Your task to perform on an android device: add a contact in the contacts app Image 0: 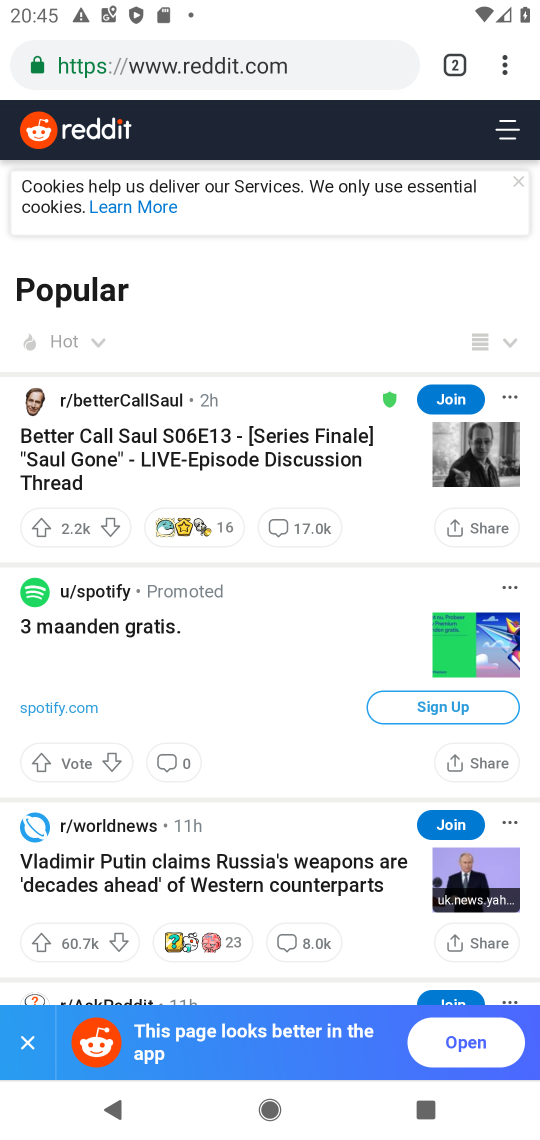
Step 0: press home button
Your task to perform on an android device: add a contact in the contacts app Image 1: 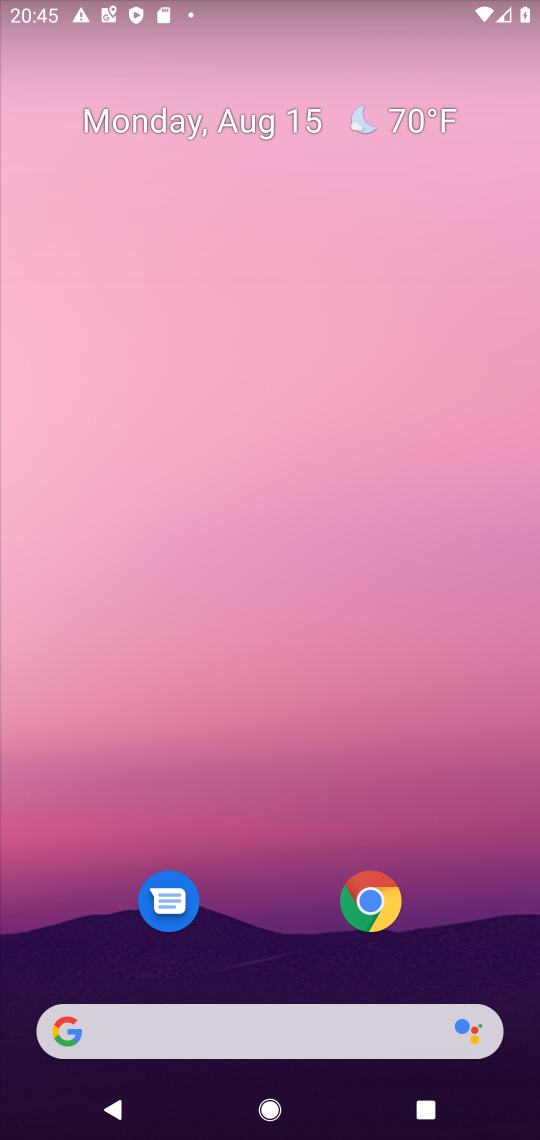
Step 1: drag from (263, 978) to (239, 312)
Your task to perform on an android device: add a contact in the contacts app Image 2: 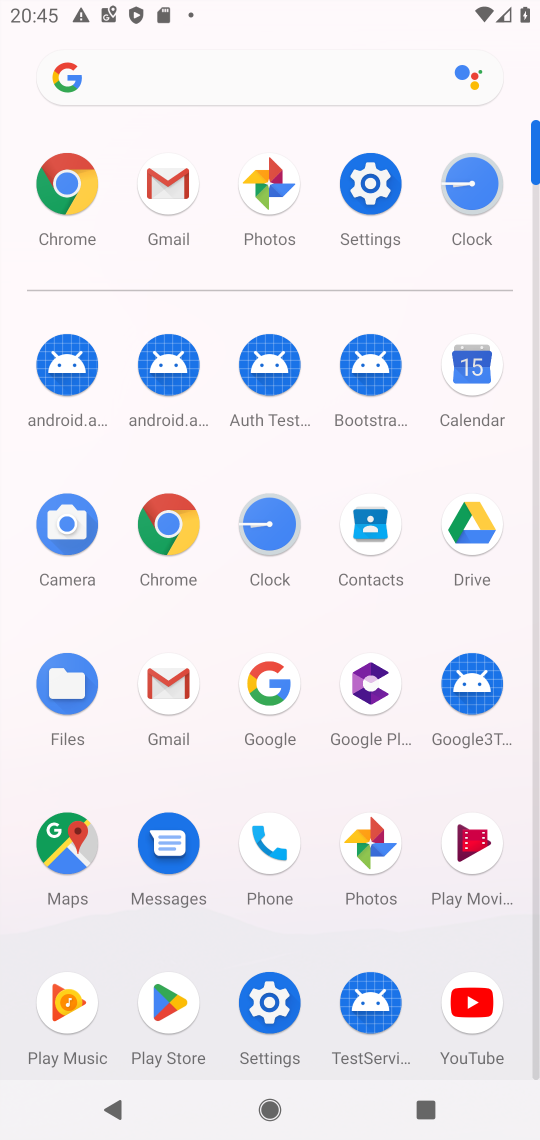
Step 2: click (370, 553)
Your task to perform on an android device: add a contact in the contacts app Image 3: 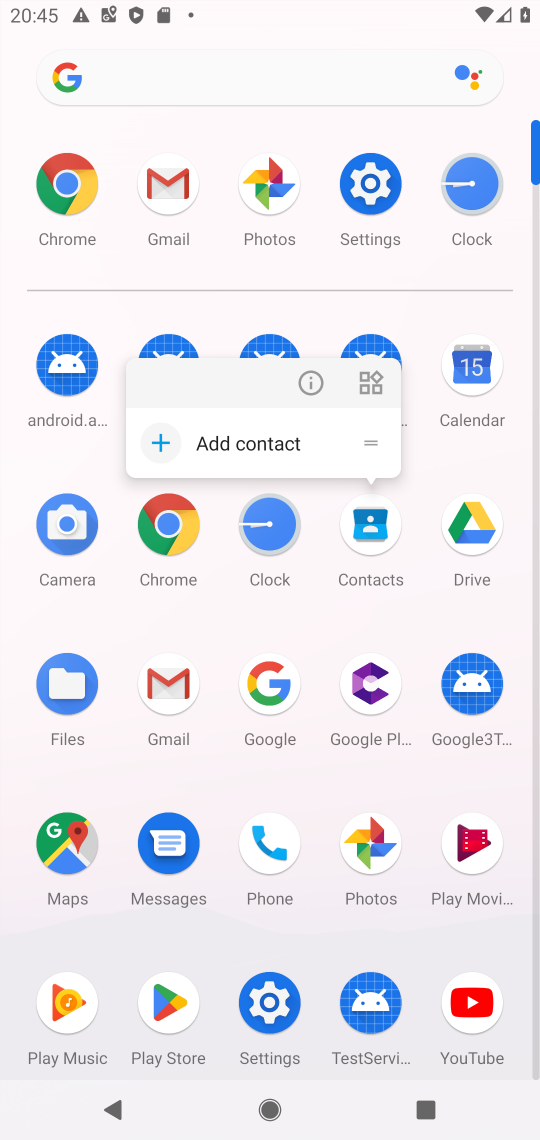
Step 3: click (370, 553)
Your task to perform on an android device: add a contact in the contacts app Image 4: 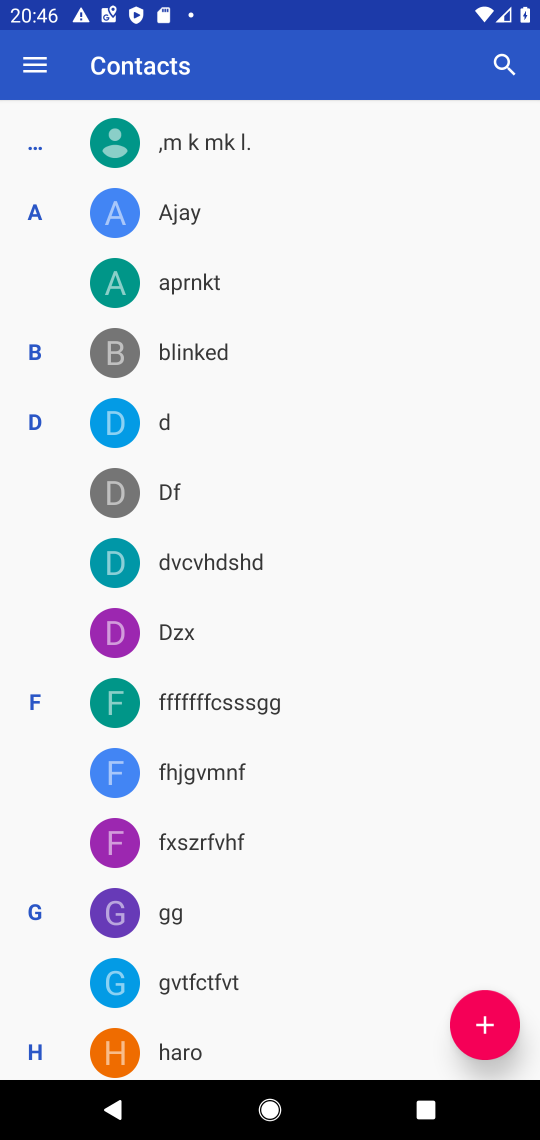
Step 4: click (499, 1024)
Your task to perform on an android device: add a contact in the contacts app Image 5: 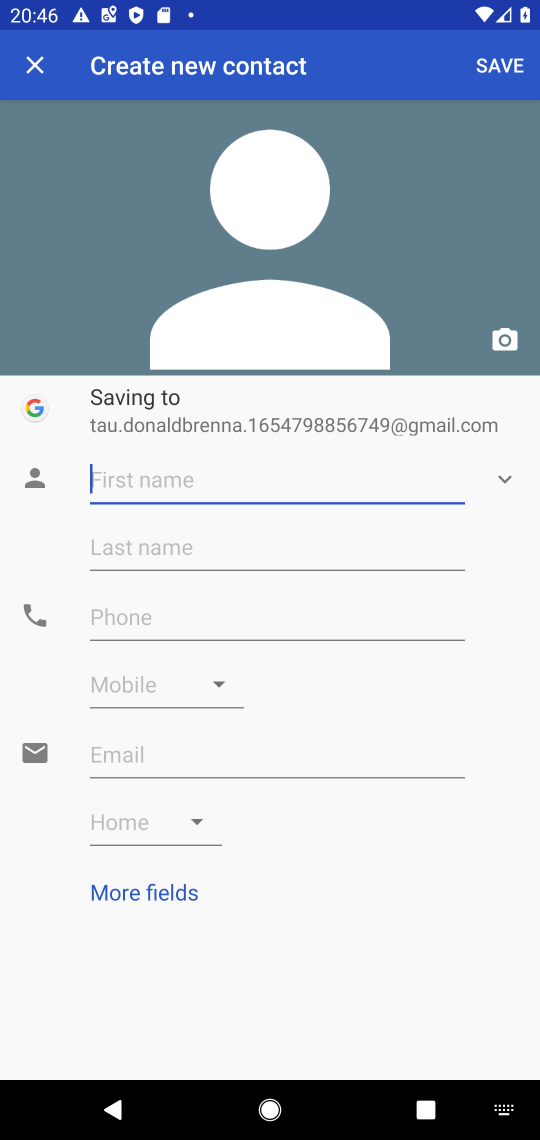
Step 5: type "flakes"
Your task to perform on an android device: add a contact in the contacts app Image 6: 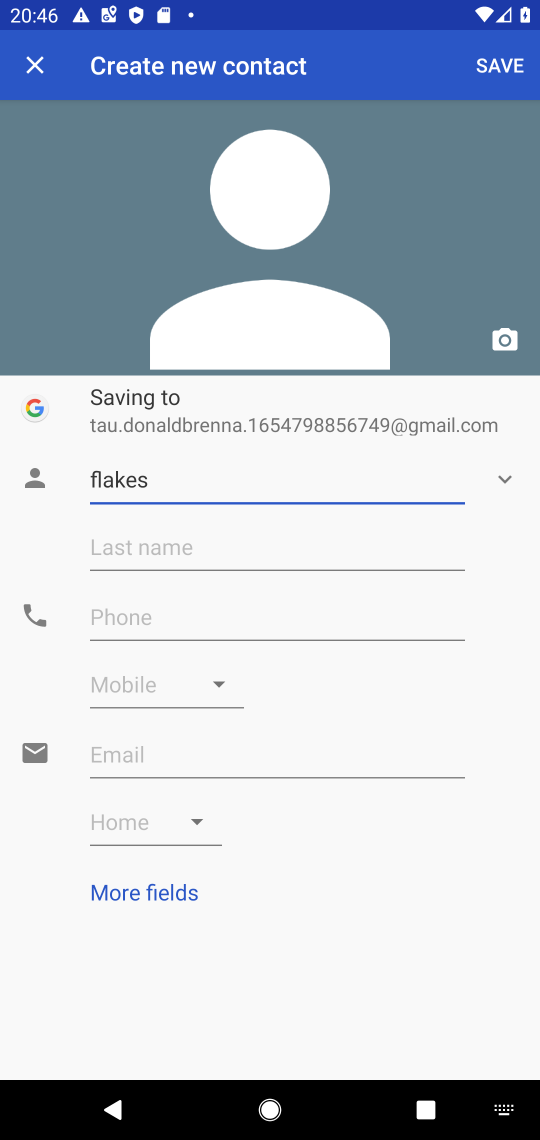
Step 6: click (497, 55)
Your task to perform on an android device: add a contact in the contacts app Image 7: 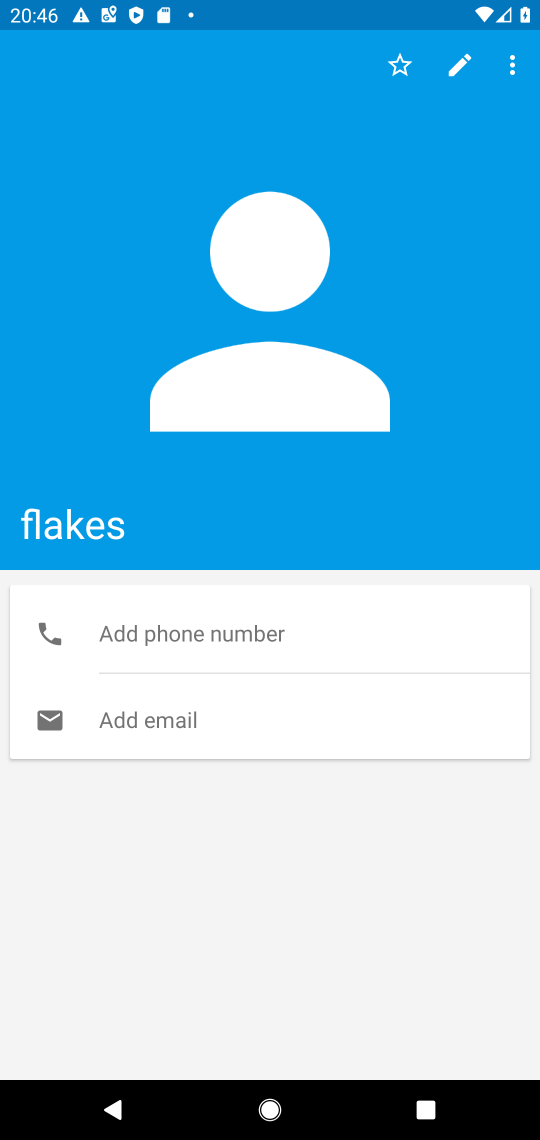
Step 7: task complete